Your task to perform on an android device: Open calendar and show me the first week of next month Image 0: 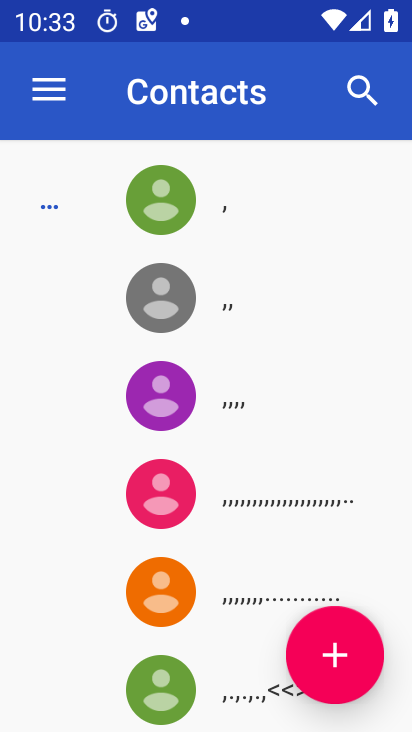
Step 0: press home button
Your task to perform on an android device: Open calendar and show me the first week of next month Image 1: 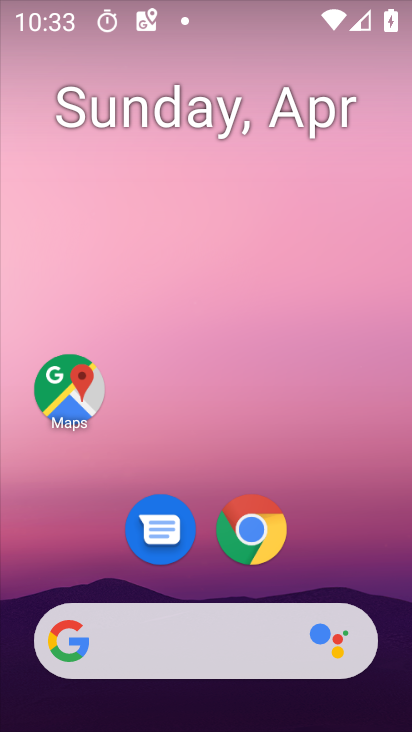
Step 1: drag from (202, 545) to (266, 57)
Your task to perform on an android device: Open calendar and show me the first week of next month Image 2: 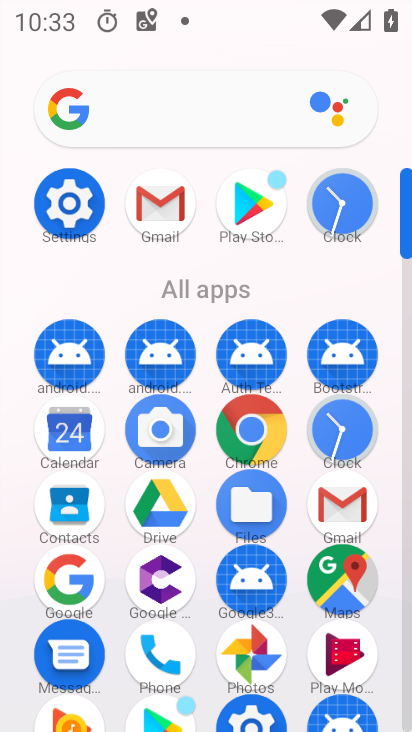
Step 2: click (63, 440)
Your task to perform on an android device: Open calendar and show me the first week of next month Image 3: 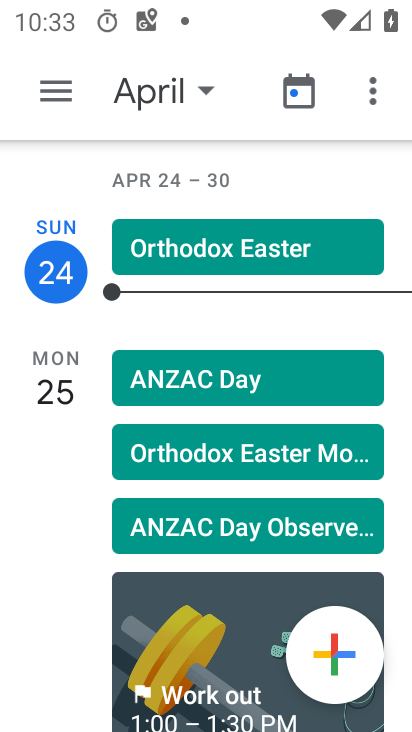
Step 3: click (172, 92)
Your task to perform on an android device: Open calendar and show me the first week of next month Image 4: 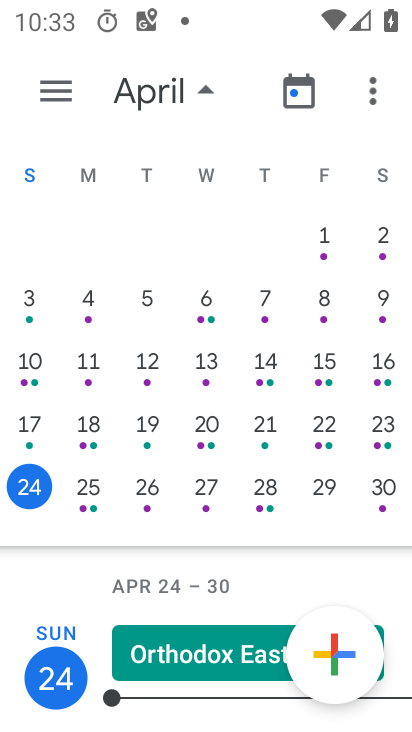
Step 4: drag from (326, 306) to (1, 169)
Your task to perform on an android device: Open calendar and show me the first week of next month Image 5: 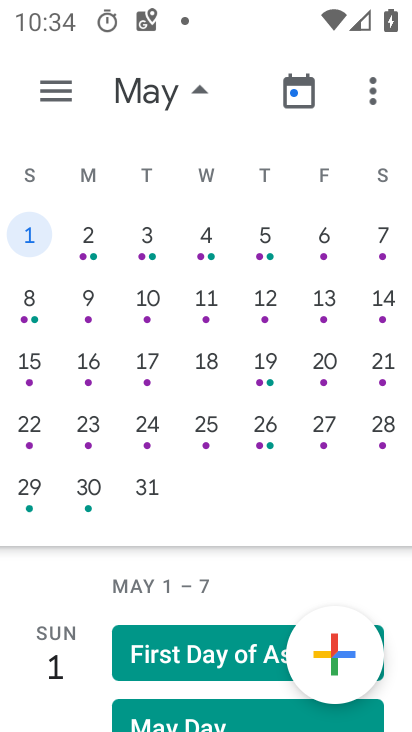
Step 5: click (60, 101)
Your task to perform on an android device: Open calendar and show me the first week of next month Image 6: 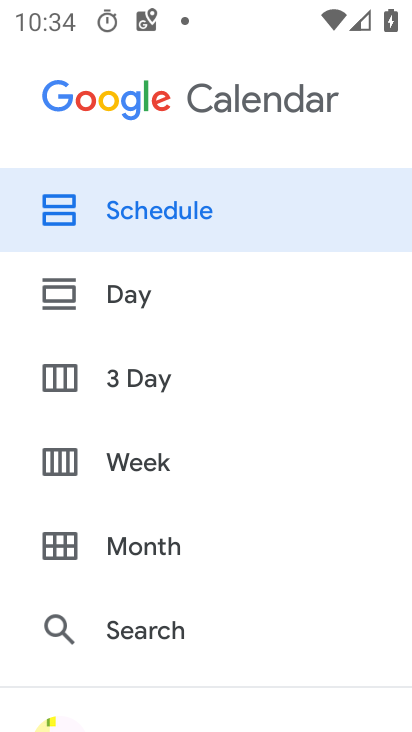
Step 6: click (119, 473)
Your task to perform on an android device: Open calendar and show me the first week of next month Image 7: 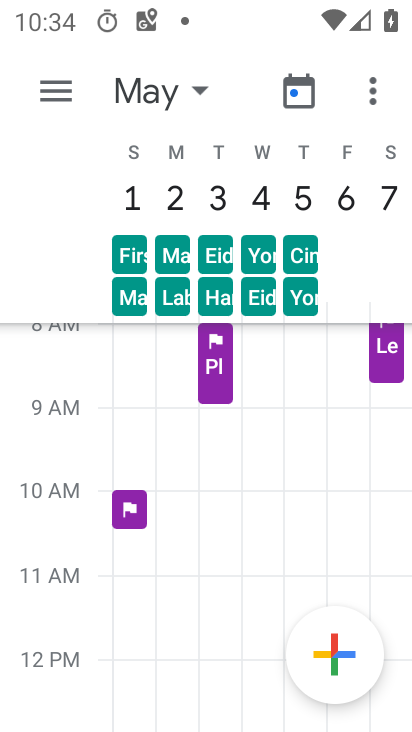
Step 7: task complete